Your task to perform on an android device: change the clock display to show seconds Image 0: 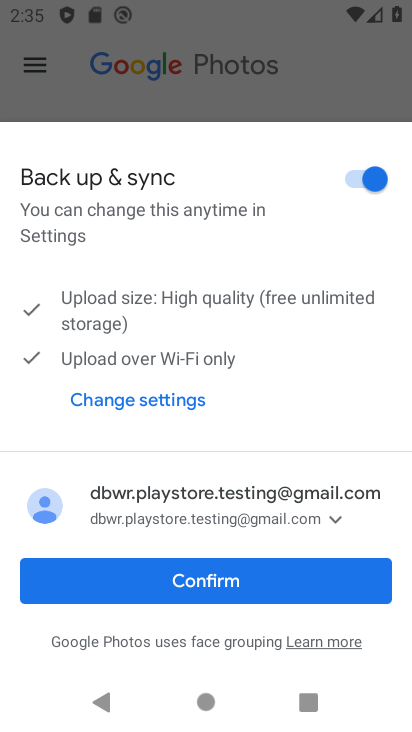
Step 0: press home button
Your task to perform on an android device: change the clock display to show seconds Image 1: 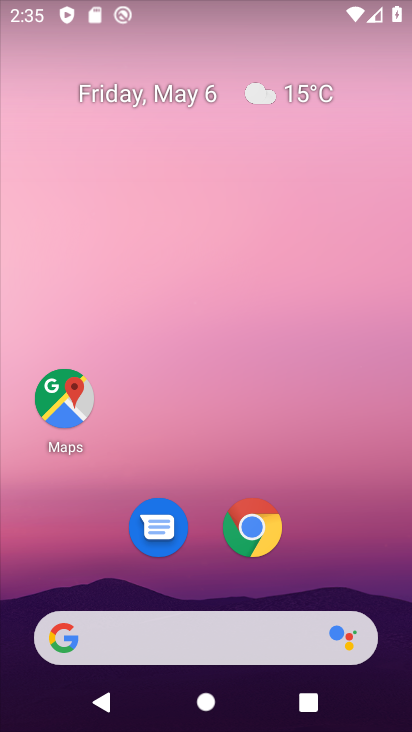
Step 1: drag from (199, 598) to (189, 102)
Your task to perform on an android device: change the clock display to show seconds Image 2: 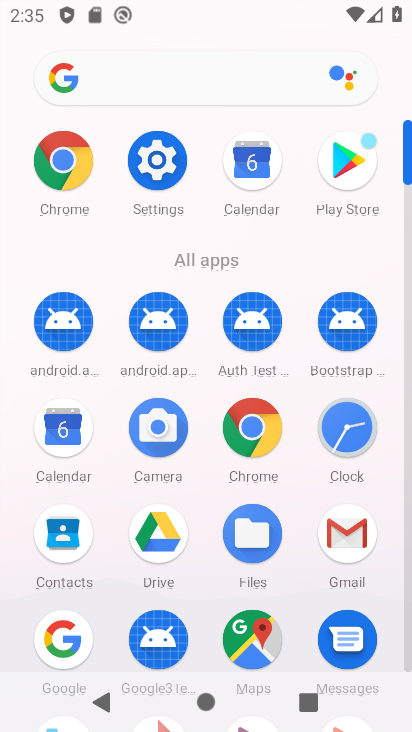
Step 2: click (364, 430)
Your task to perform on an android device: change the clock display to show seconds Image 3: 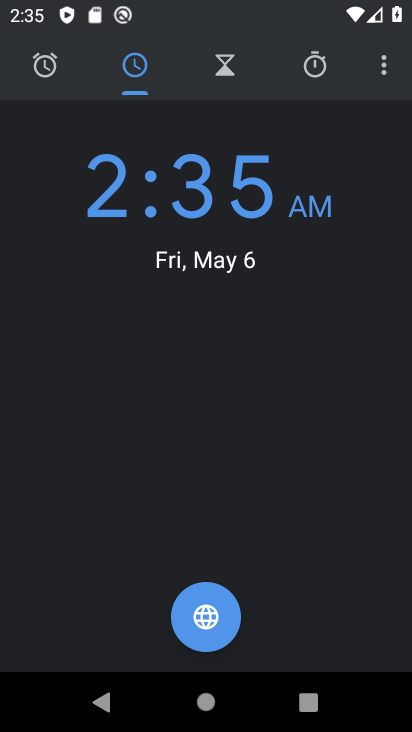
Step 3: click (388, 67)
Your task to perform on an android device: change the clock display to show seconds Image 4: 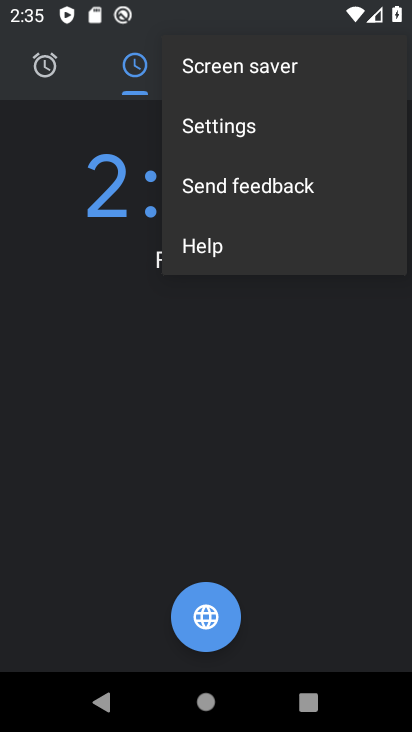
Step 4: click (276, 120)
Your task to perform on an android device: change the clock display to show seconds Image 5: 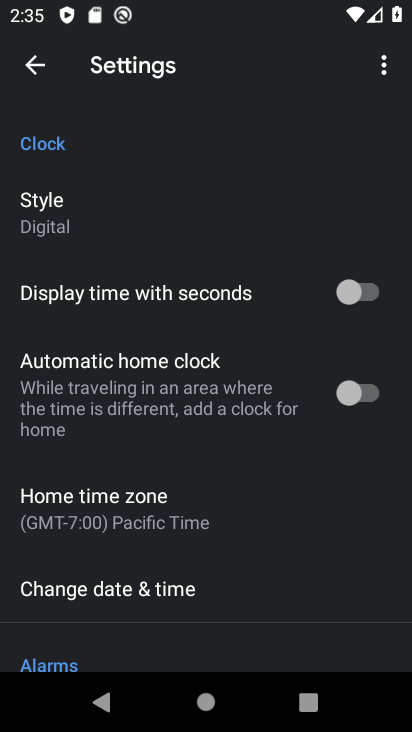
Step 5: click (360, 288)
Your task to perform on an android device: change the clock display to show seconds Image 6: 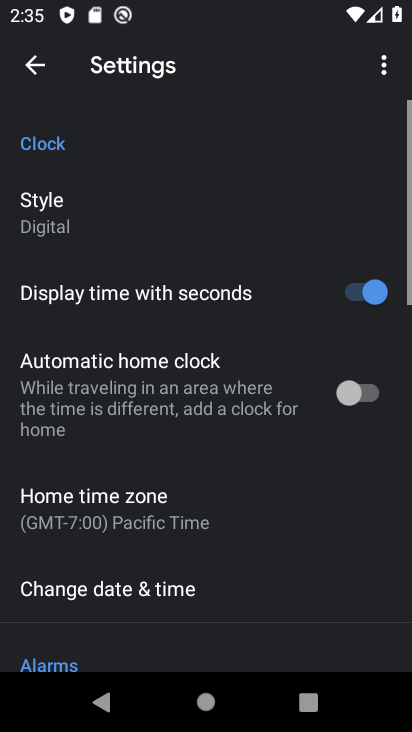
Step 6: task complete